Your task to perform on an android device: open app "Life360: Find Family & Friends" (install if not already installed) and go to login screen Image 0: 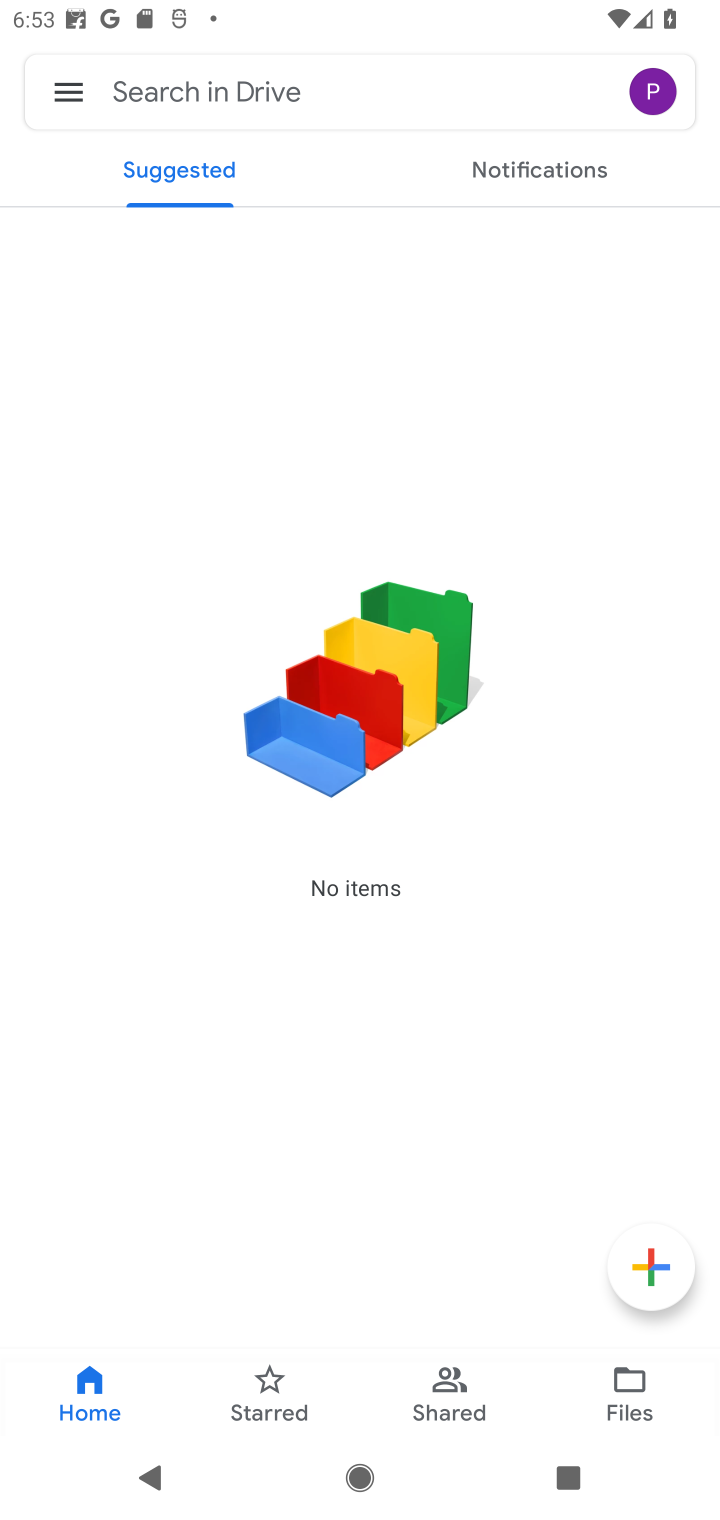
Step 0: press home button
Your task to perform on an android device: open app "Life360: Find Family & Friends" (install if not already installed) and go to login screen Image 1: 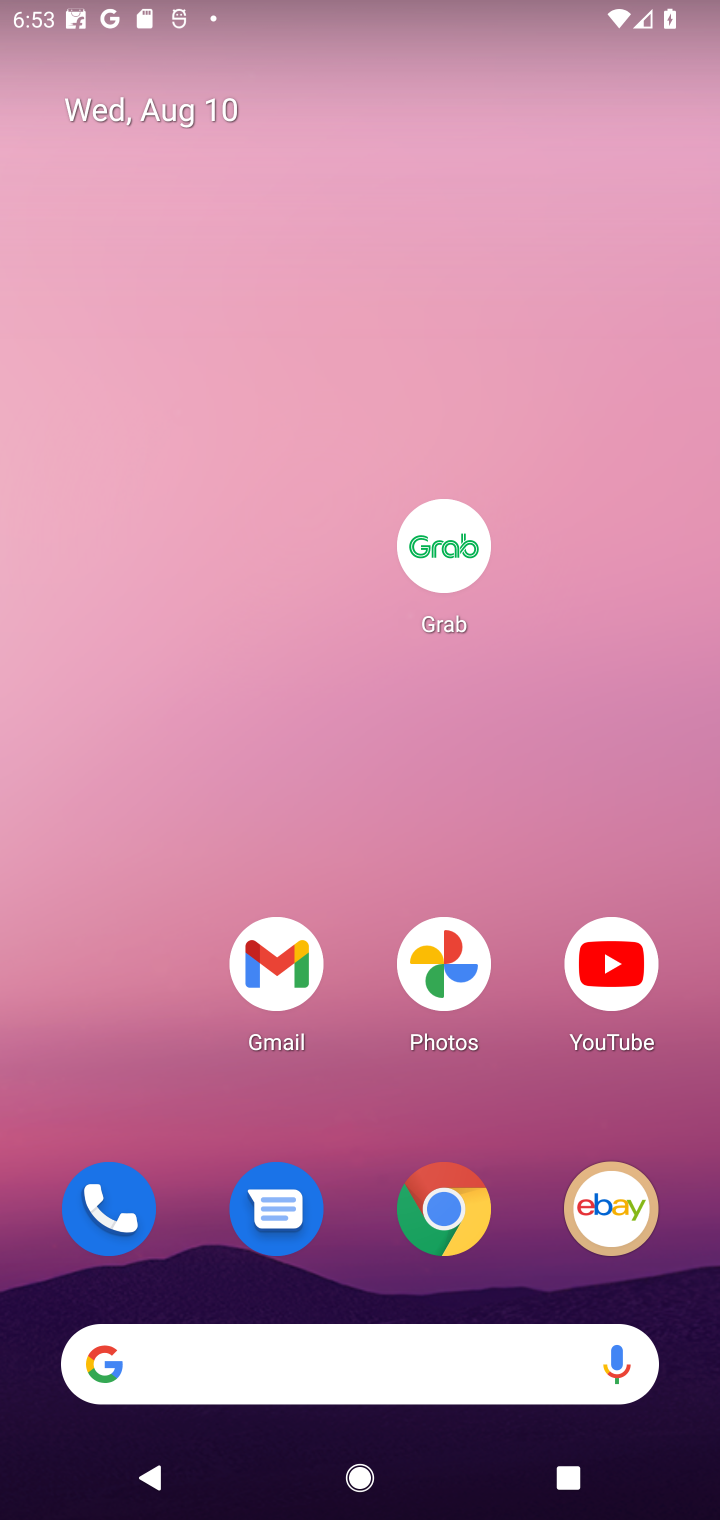
Step 1: drag from (360, 1254) to (361, 117)
Your task to perform on an android device: open app "Life360: Find Family & Friends" (install if not already installed) and go to login screen Image 2: 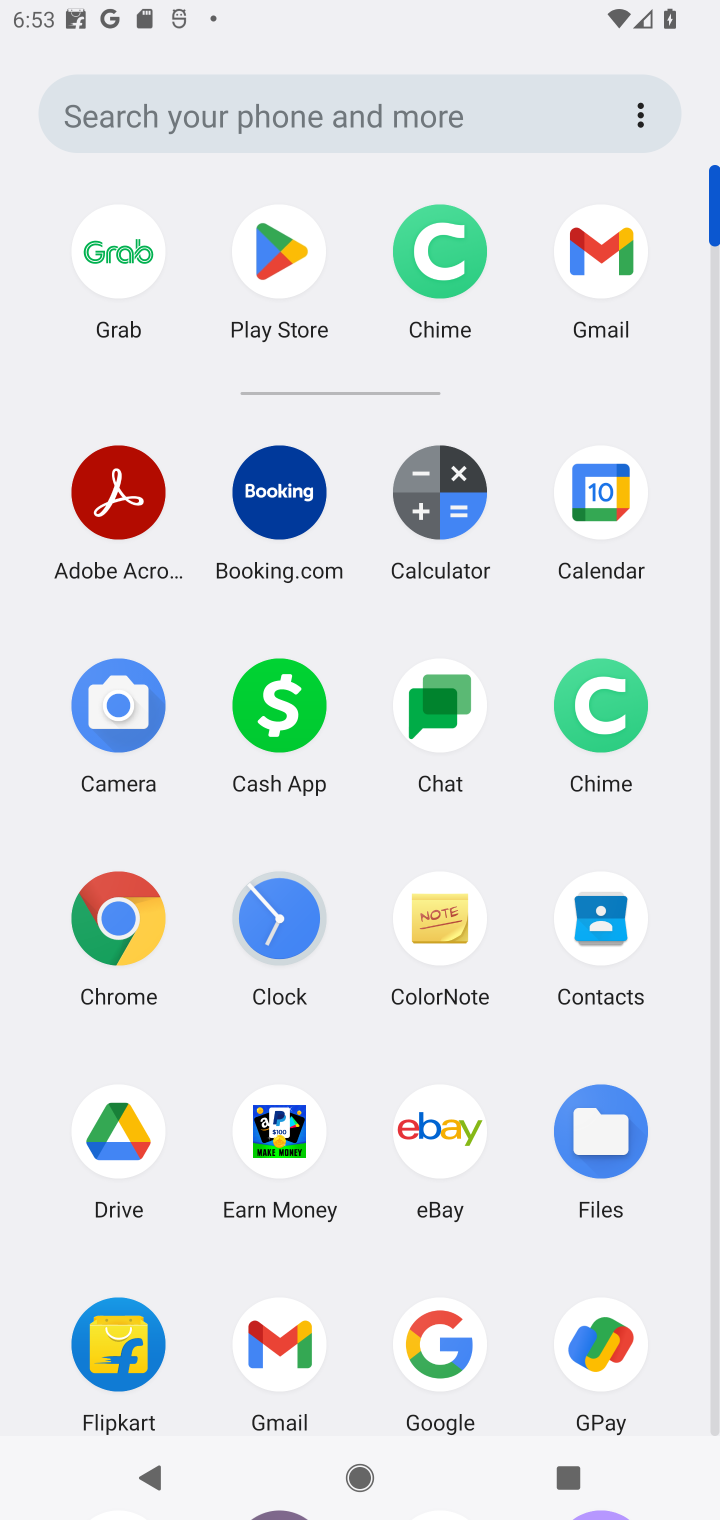
Step 2: click (281, 204)
Your task to perform on an android device: open app "Life360: Find Family & Friends" (install if not already installed) and go to login screen Image 3: 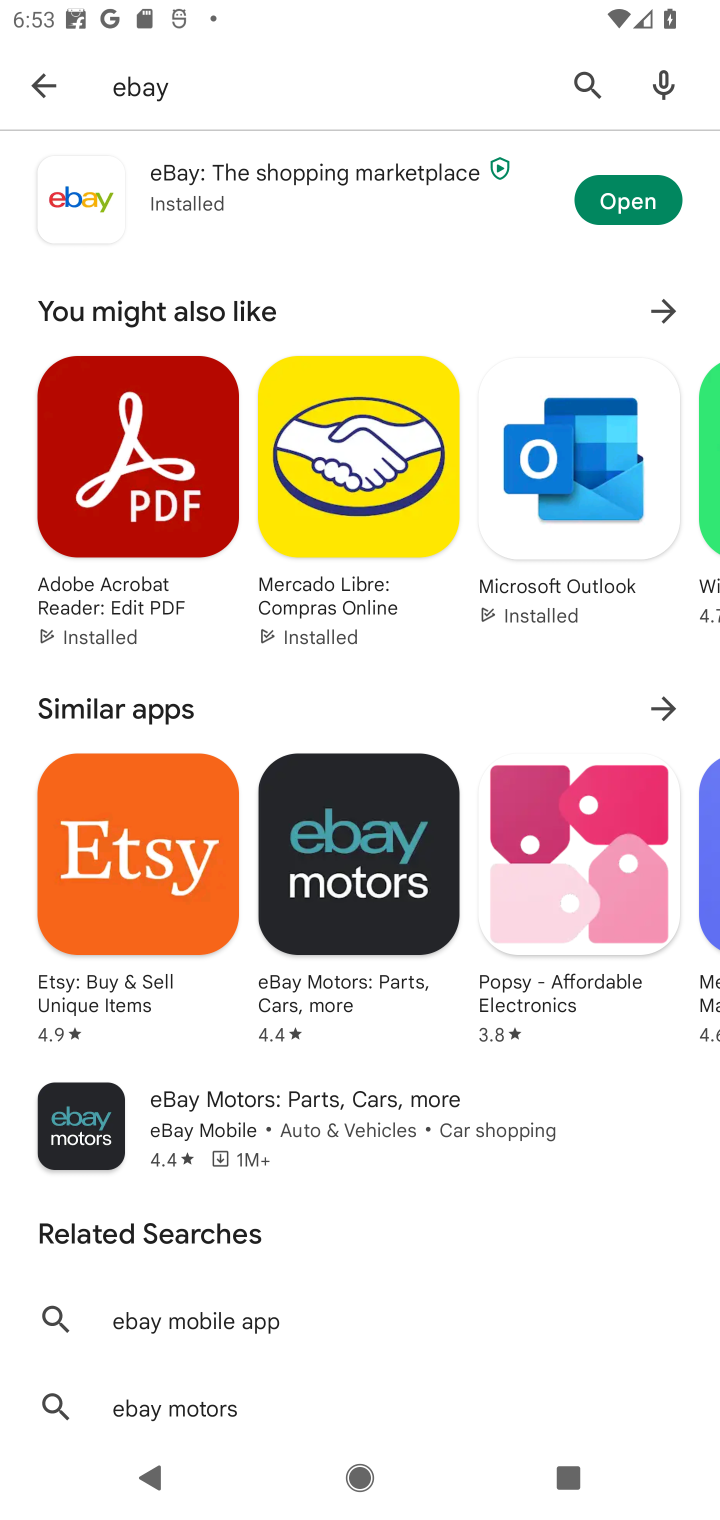
Step 3: click (563, 88)
Your task to perform on an android device: open app "Life360: Find Family & Friends" (install if not already installed) and go to login screen Image 4: 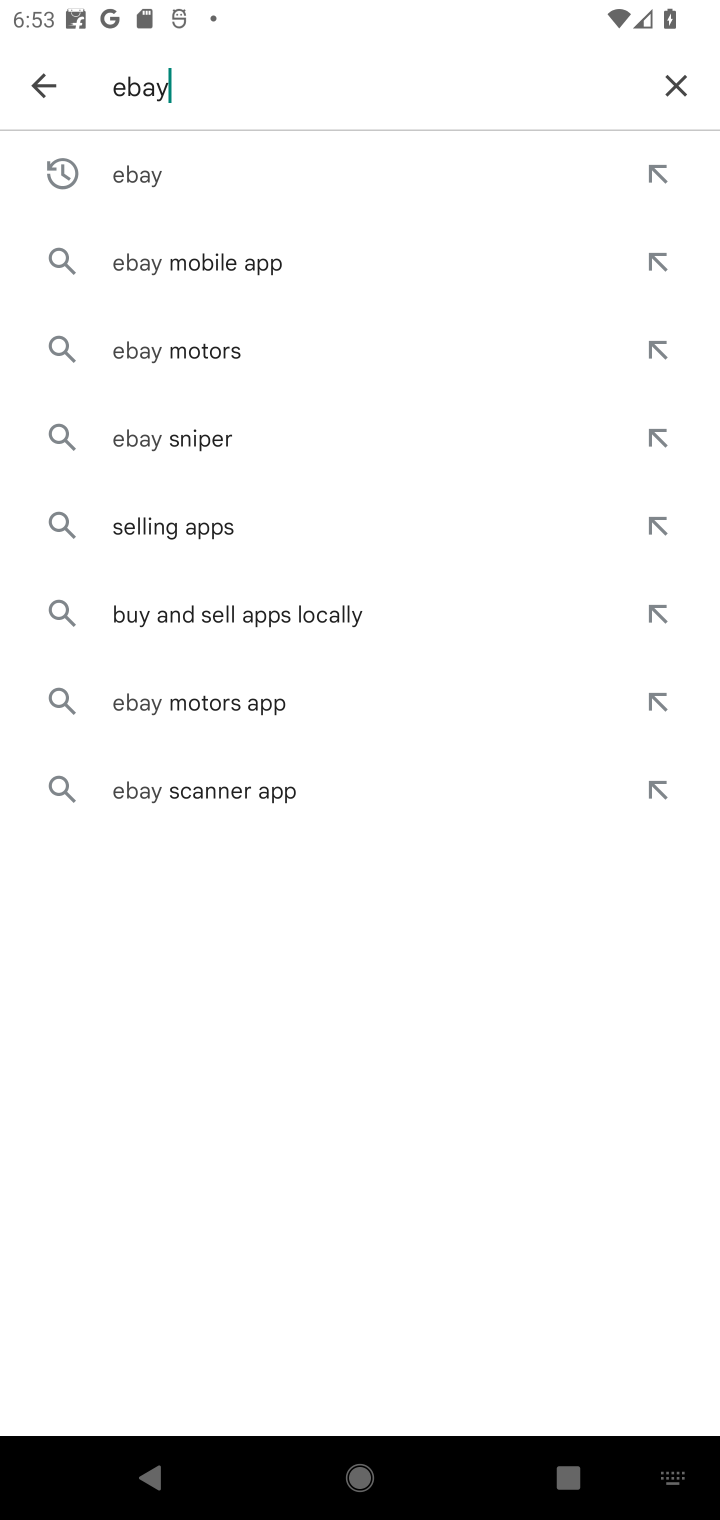
Step 4: click (675, 63)
Your task to perform on an android device: open app "Life360: Find Family & Friends" (install if not already installed) and go to login screen Image 5: 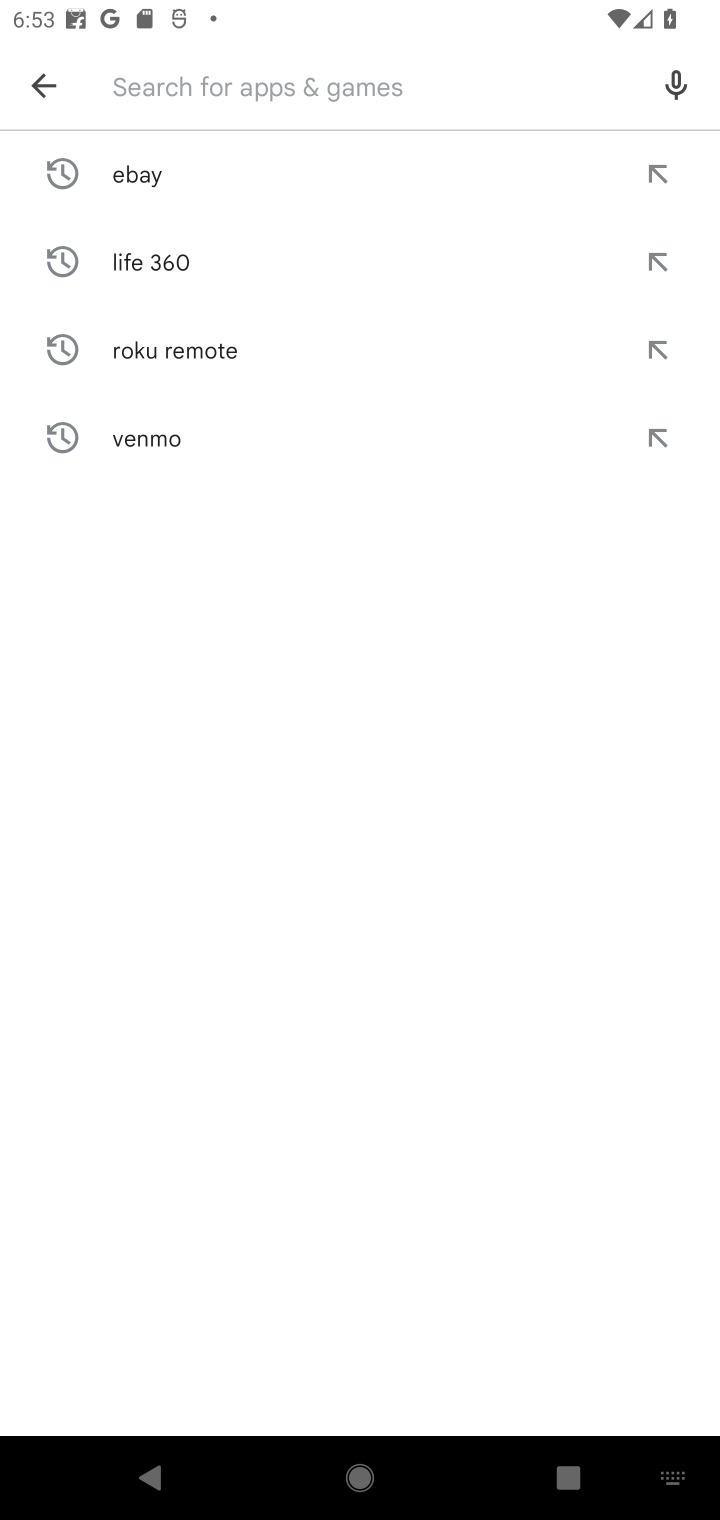
Step 5: type "life360"
Your task to perform on an android device: open app "Life360: Find Family & Friends" (install if not already installed) and go to login screen Image 6: 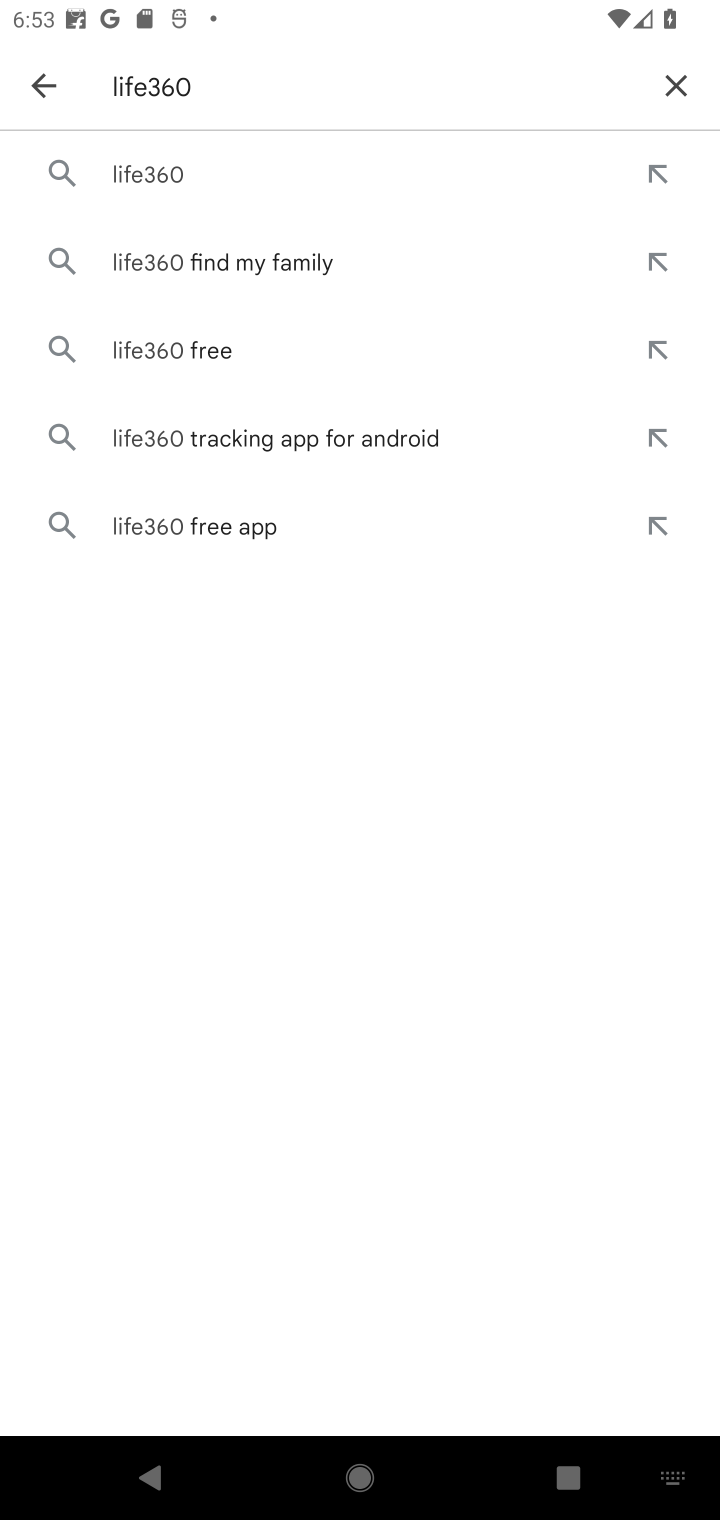
Step 6: click (416, 180)
Your task to perform on an android device: open app "Life360: Find Family & Friends" (install if not already installed) and go to login screen Image 7: 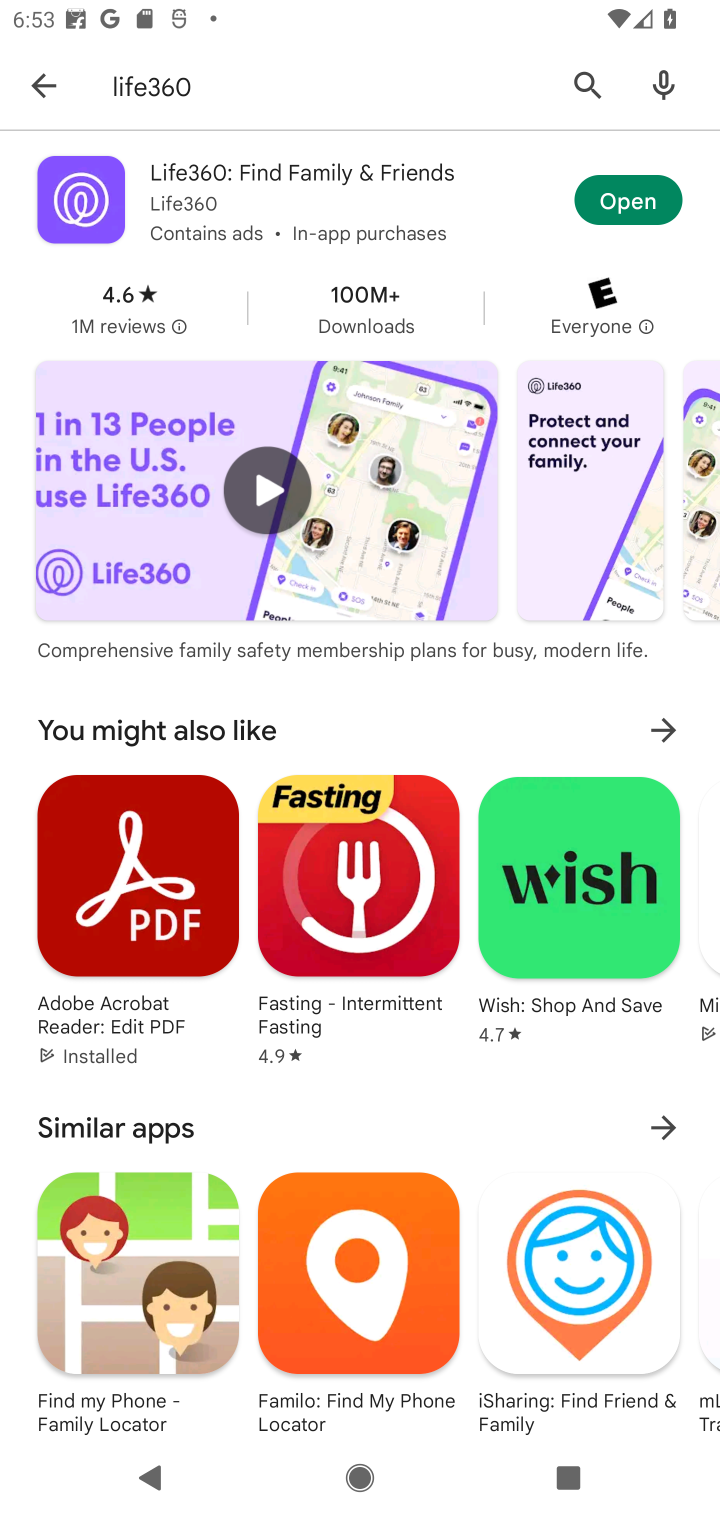
Step 7: click (649, 212)
Your task to perform on an android device: open app "Life360: Find Family & Friends" (install if not already installed) and go to login screen Image 8: 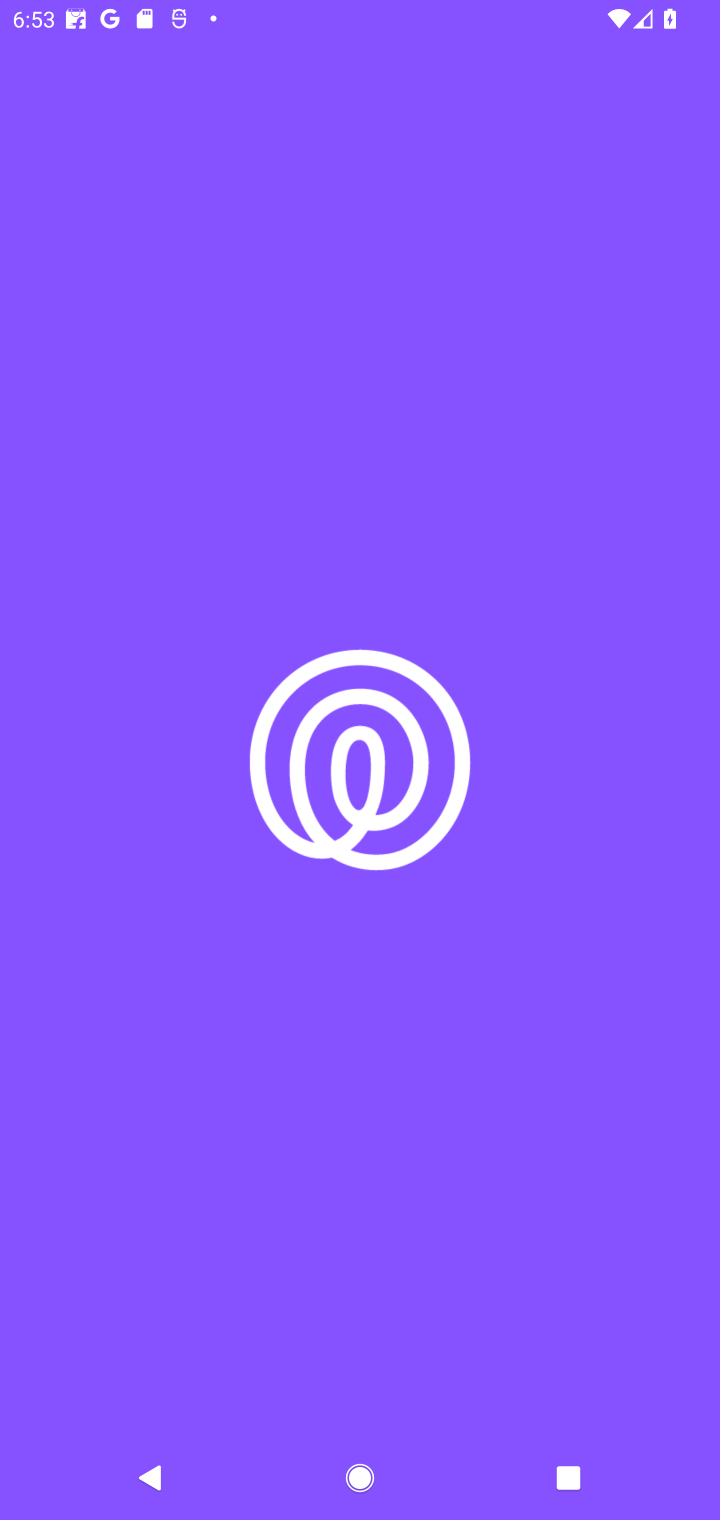
Step 8: task complete